Your task to perform on an android device: turn on sleep mode Image 0: 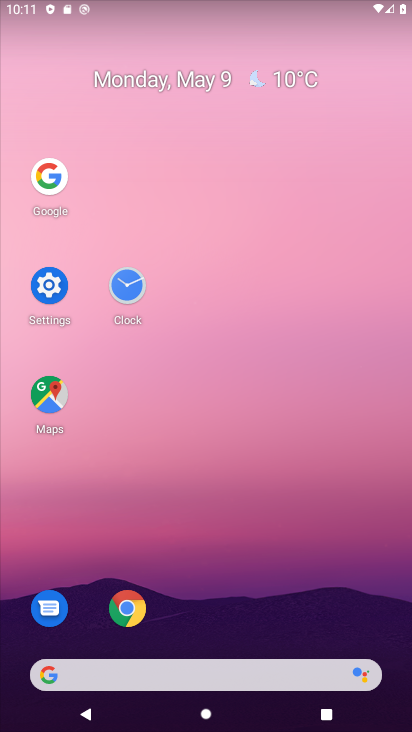
Step 0: click (44, 288)
Your task to perform on an android device: turn on sleep mode Image 1: 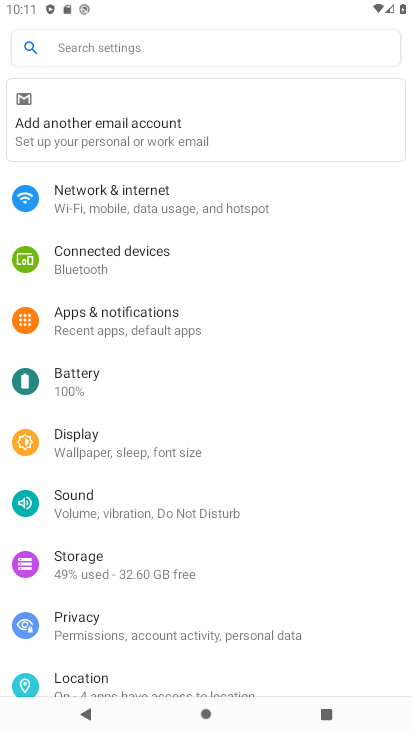
Step 1: click (280, 435)
Your task to perform on an android device: turn on sleep mode Image 2: 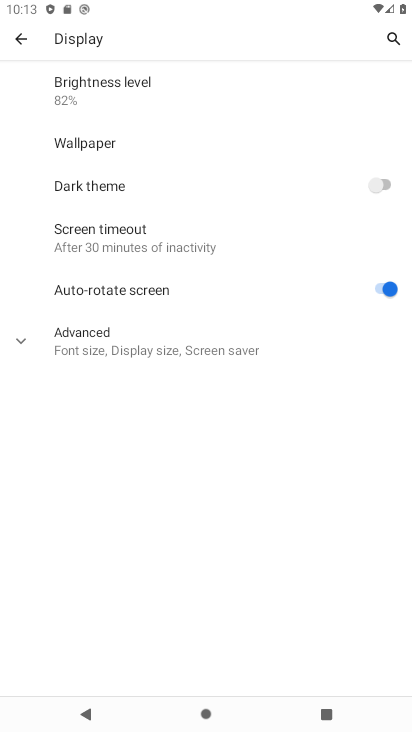
Step 2: task complete